Your task to perform on an android device: toggle wifi Image 0: 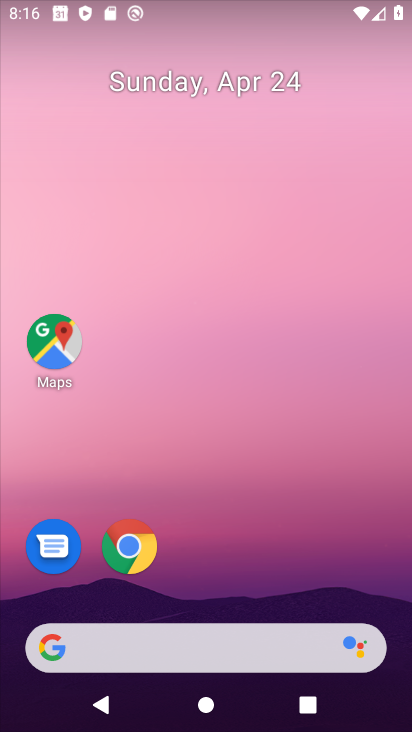
Step 0: drag from (301, 572) to (157, 82)
Your task to perform on an android device: toggle wifi Image 1: 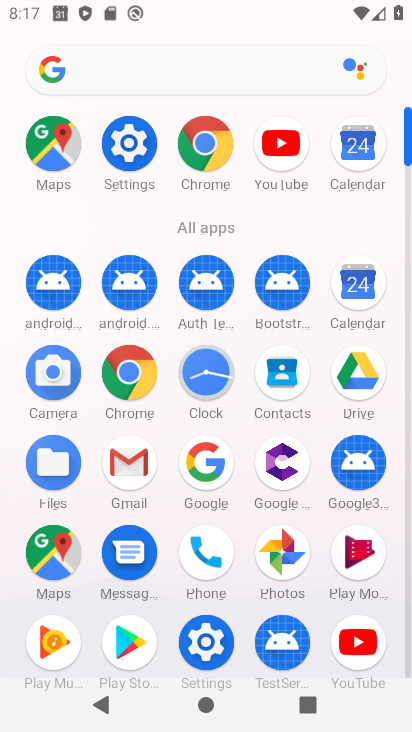
Step 1: click (126, 157)
Your task to perform on an android device: toggle wifi Image 2: 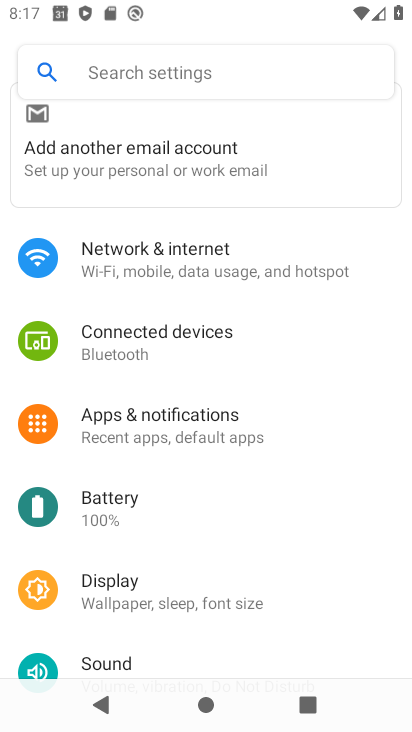
Step 2: click (82, 261)
Your task to perform on an android device: toggle wifi Image 3: 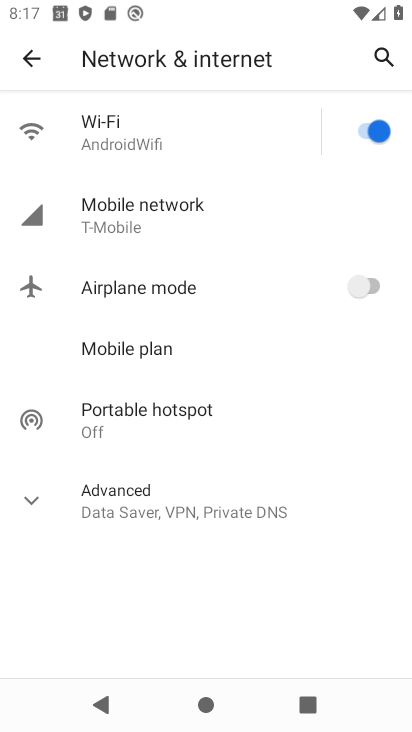
Step 3: click (373, 126)
Your task to perform on an android device: toggle wifi Image 4: 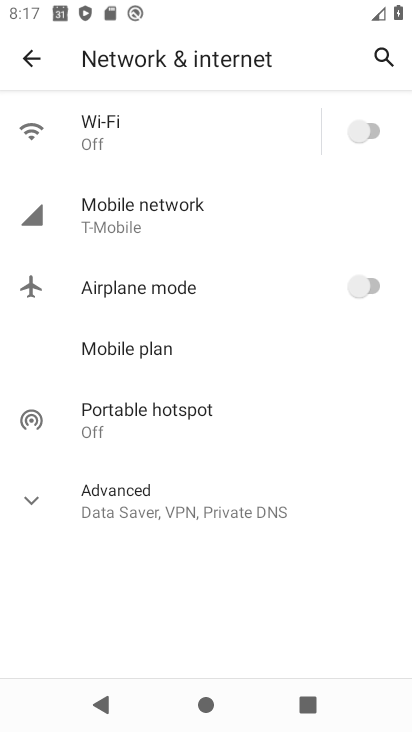
Step 4: task complete